Your task to perform on an android device: Go to internet settings Image 0: 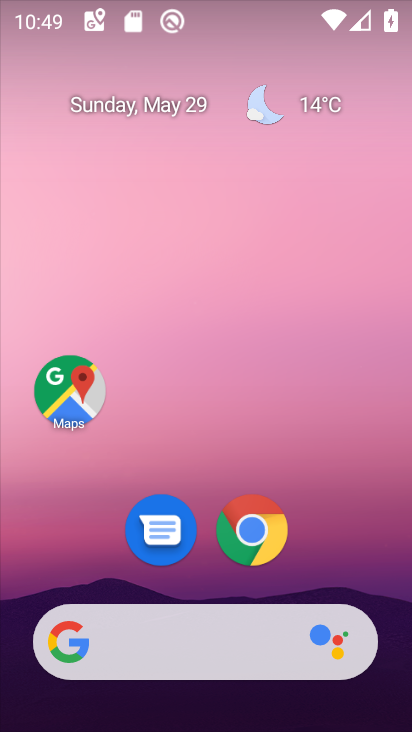
Step 0: drag from (207, 643) to (234, 7)
Your task to perform on an android device: Go to internet settings Image 1: 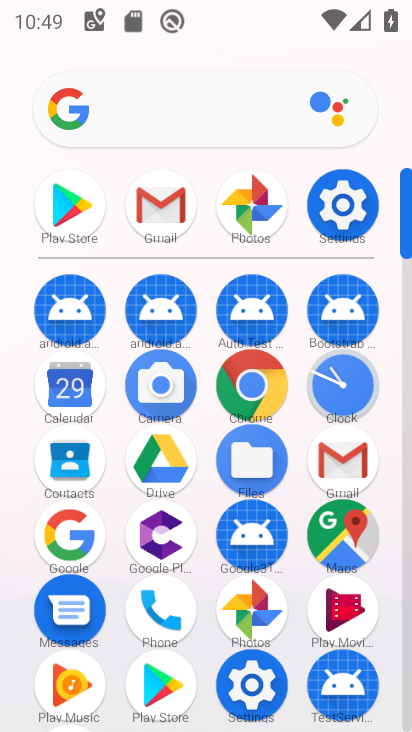
Step 1: click (326, 223)
Your task to perform on an android device: Go to internet settings Image 2: 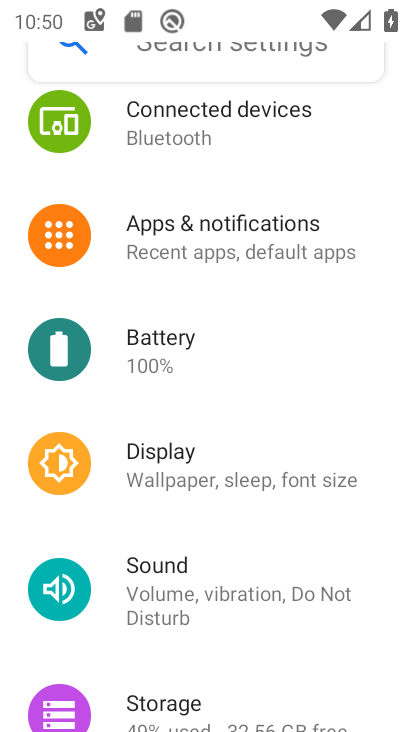
Step 2: drag from (184, 240) to (210, 709)
Your task to perform on an android device: Go to internet settings Image 3: 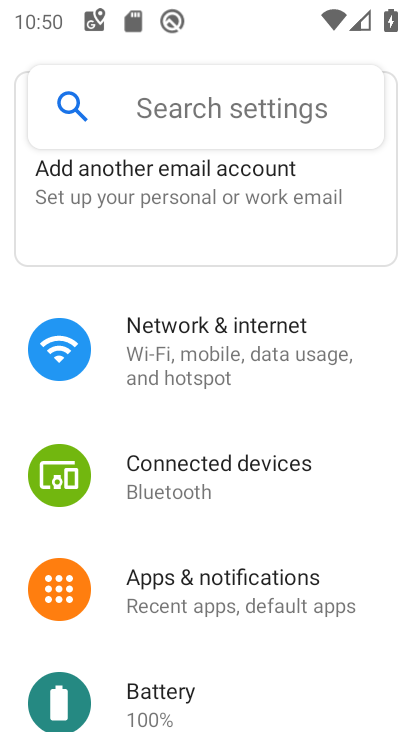
Step 3: click (229, 336)
Your task to perform on an android device: Go to internet settings Image 4: 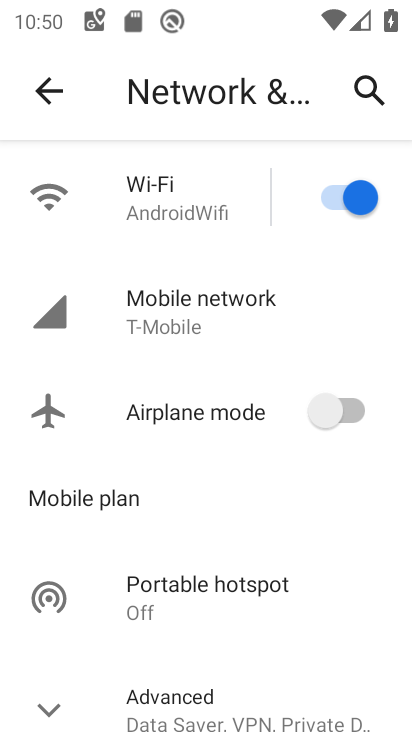
Step 4: task complete